Your task to perform on an android device: Open Google Maps Image 0: 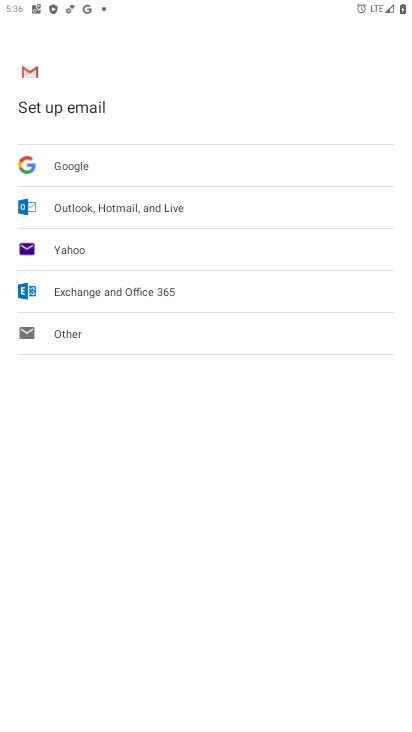
Step 0: press home button
Your task to perform on an android device: Open Google Maps Image 1: 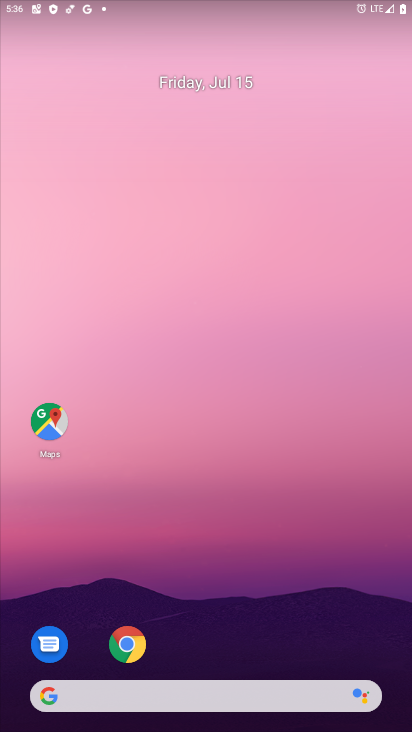
Step 1: drag from (216, 683) to (230, 127)
Your task to perform on an android device: Open Google Maps Image 2: 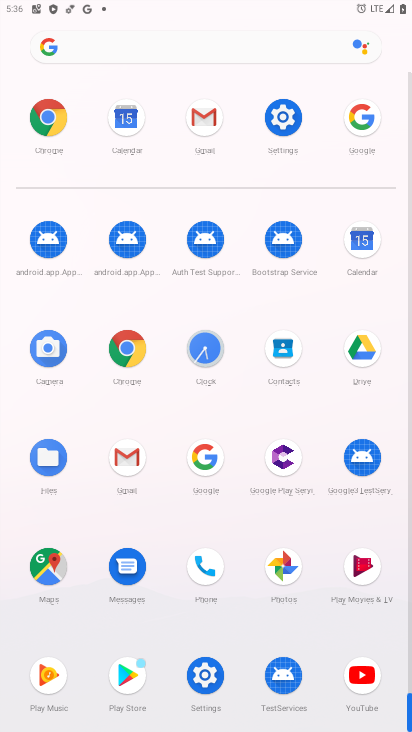
Step 2: click (42, 556)
Your task to perform on an android device: Open Google Maps Image 3: 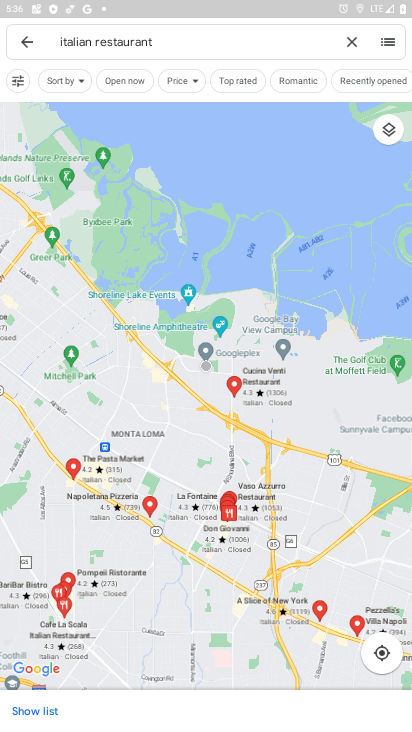
Step 3: click (34, 43)
Your task to perform on an android device: Open Google Maps Image 4: 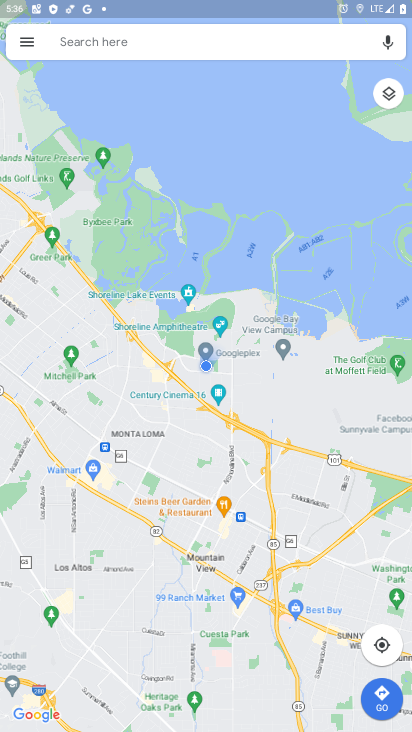
Step 4: task complete